Your task to perform on an android device: When is my next appointment? Image 0: 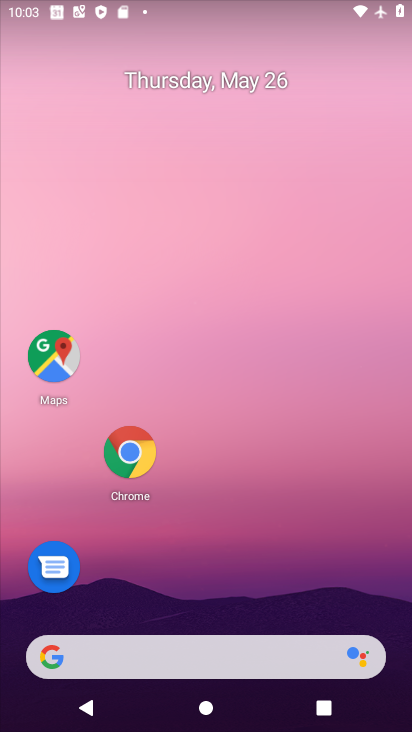
Step 0: drag from (164, 658) to (292, 158)
Your task to perform on an android device: When is my next appointment? Image 1: 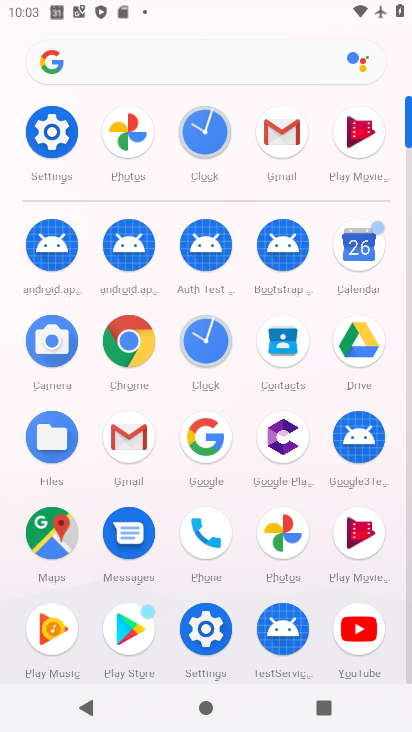
Step 1: click (371, 242)
Your task to perform on an android device: When is my next appointment? Image 2: 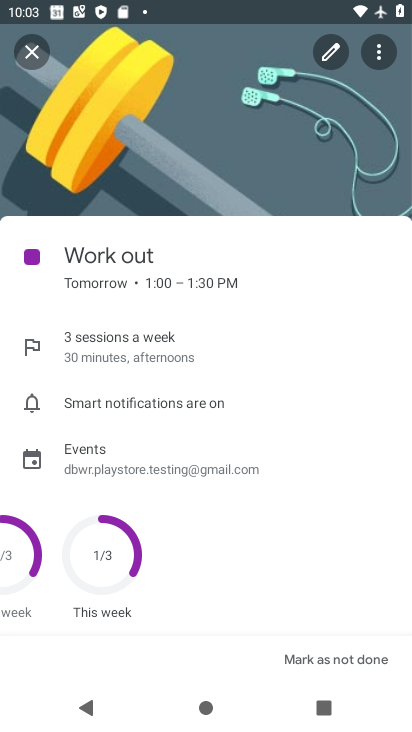
Step 2: click (46, 47)
Your task to perform on an android device: When is my next appointment? Image 3: 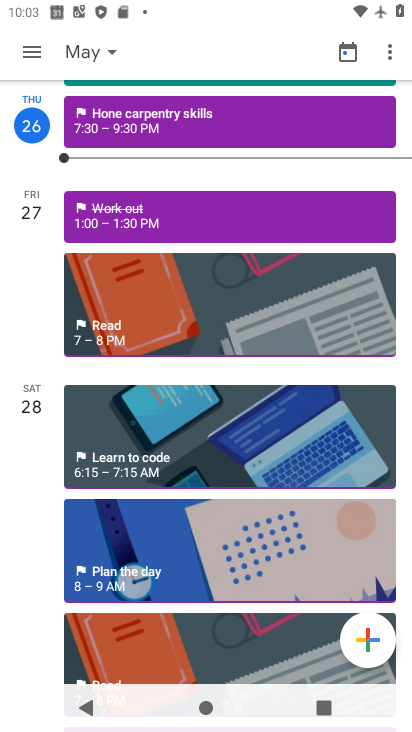
Step 3: click (20, 56)
Your task to perform on an android device: When is my next appointment? Image 4: 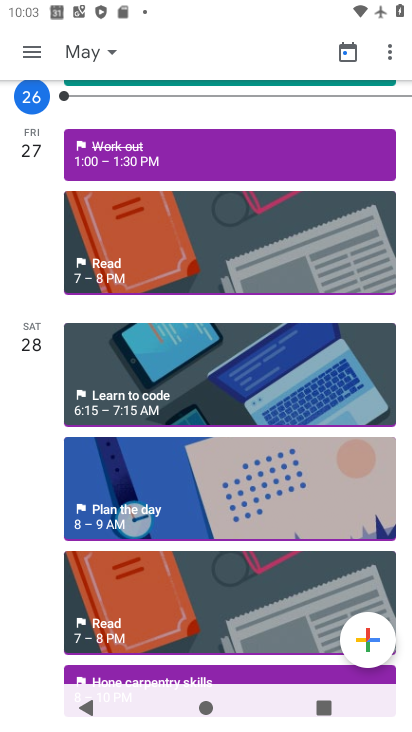
Step 4: click (29, 58)
Your task to perform on an android device: When is my next appointment? Image 5: 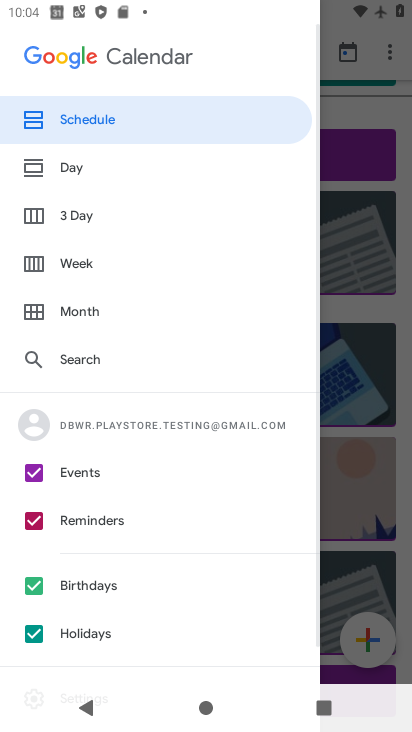
Step 5: click (87, 265)
Your task to perform on an android device: When is my next appointment? Image 6: 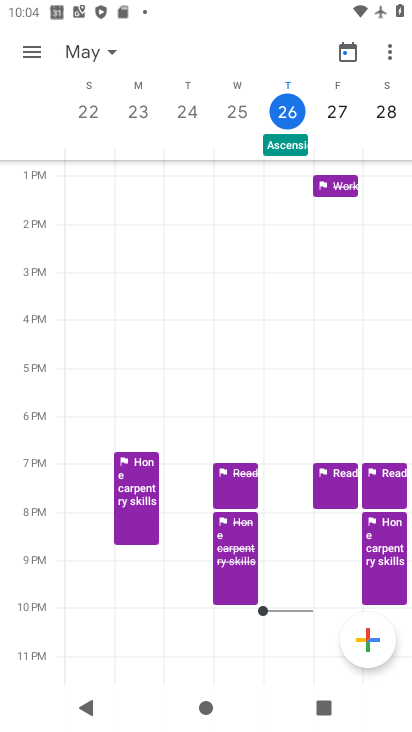
Step 6: click (48, 47)
Your task to perform on an android device: When is my next appointment? Image 7: 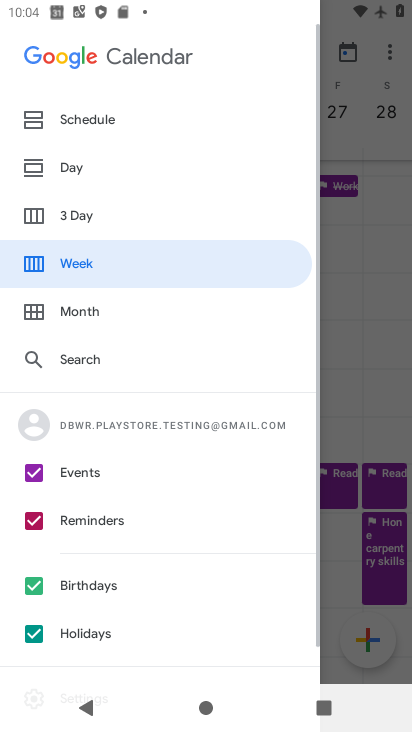
Step 7: click (87, 129)
Your task to perform on an android device: When is my next appointment? Image 8: 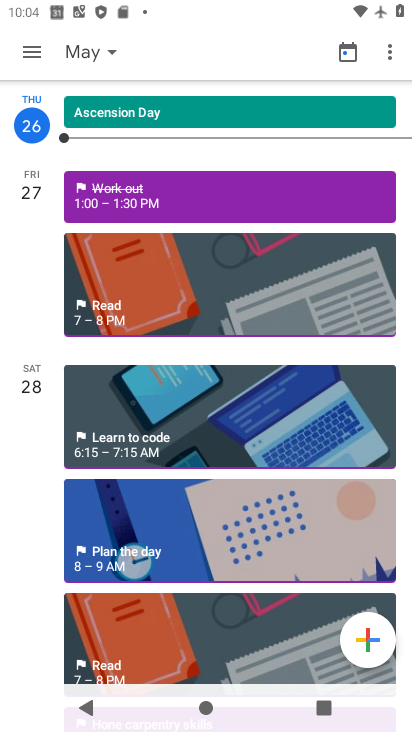
Step 8: click (174, 195)
Your task to perform on an android device: When is my next appointment? Image 9: 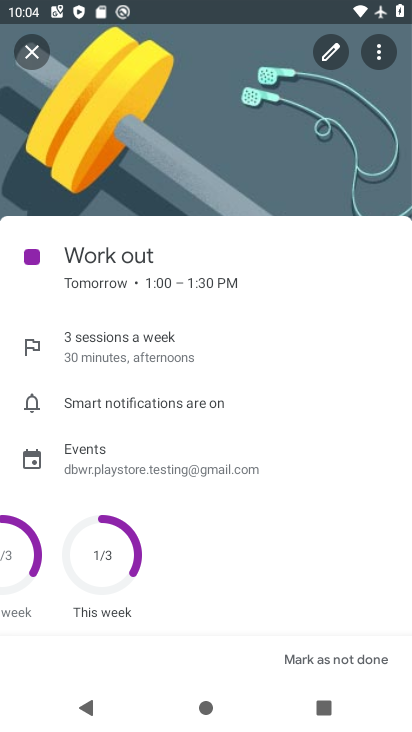
Step 9: task complete